Your task to perform on an android device: change text size in settings app Image 0: 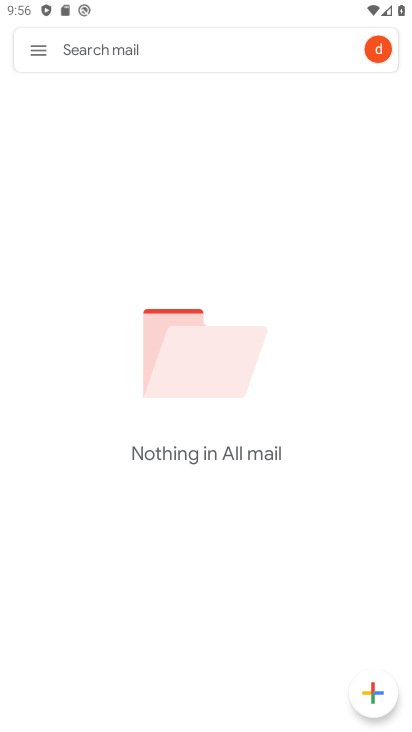
Step 0: press home button
Your task to perform on an android device: change text size in settings app Image 1: 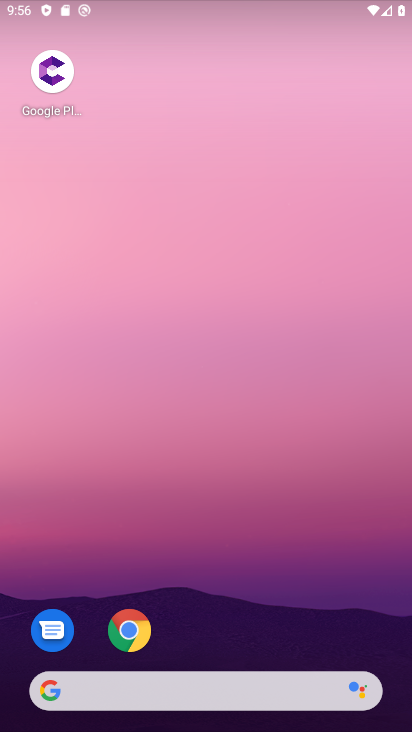
Step 1: drag from (297, 611) to (275, 144)
Your task to perform on an android device: change text size in settings app Image 2: 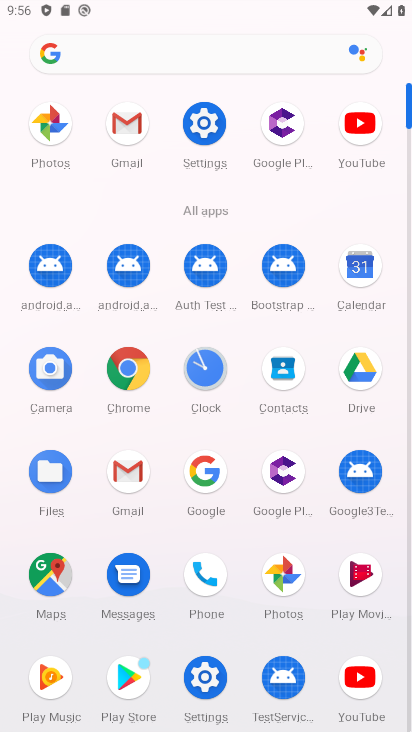
Step 2: click (213, 114)
Your task to perform on an android device: change text size in settings app Image 3: 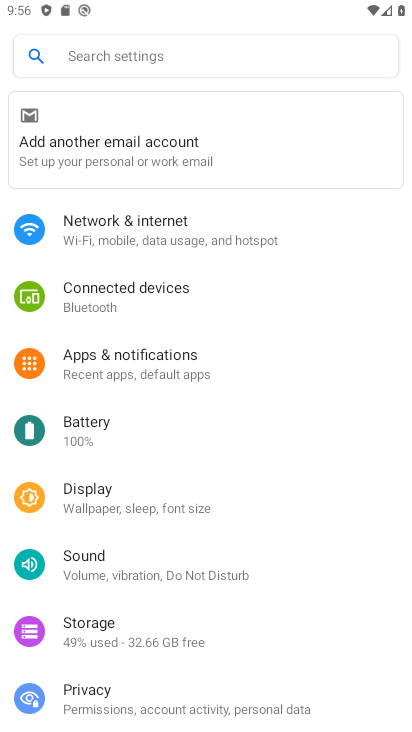
Step 3: click (203, 507)
Your task to perform on an android device: change text size in settings app Image 4: 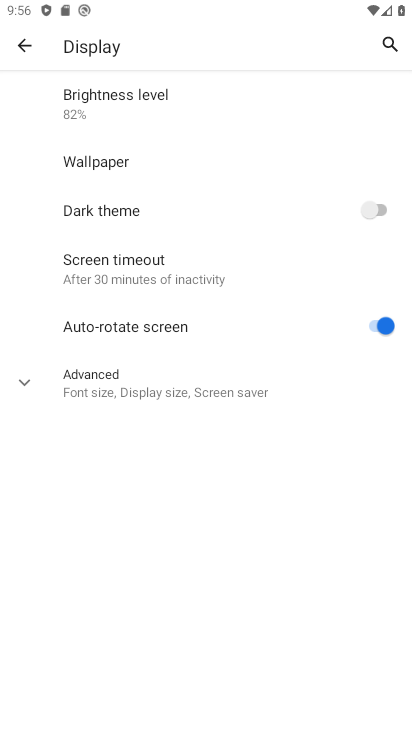
Step 4: click (21, 382)
Your task to perform on an android device: change text size in settings app Image 5: 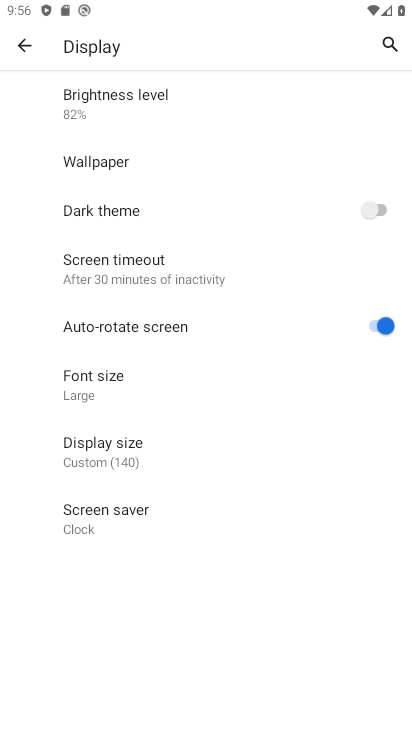
Step 5: click (93, 391)
Your task to perform on an android device: change text size in settings app Image 6: 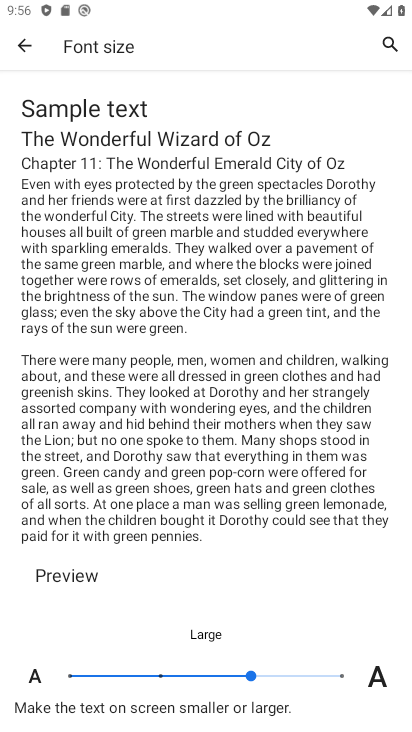
Step 6: click (158, 675)
Your task to perform on an android device: change text size in settings app Image 7: 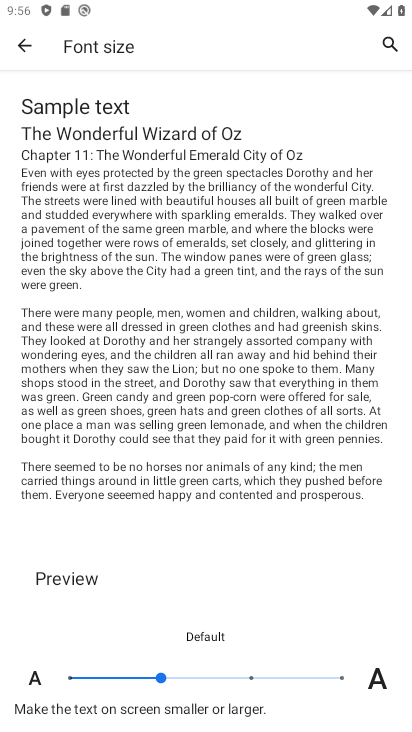
Step 7: task complete